Your task to perform on an android device: turn on data saver in the chrome app Image 0: 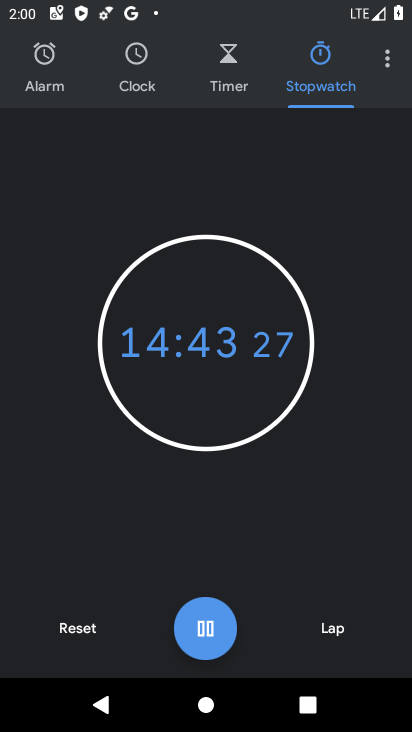
Step 0: press home button
Your task to perform on an android device: turn on data saver in the chrome app Image 1: 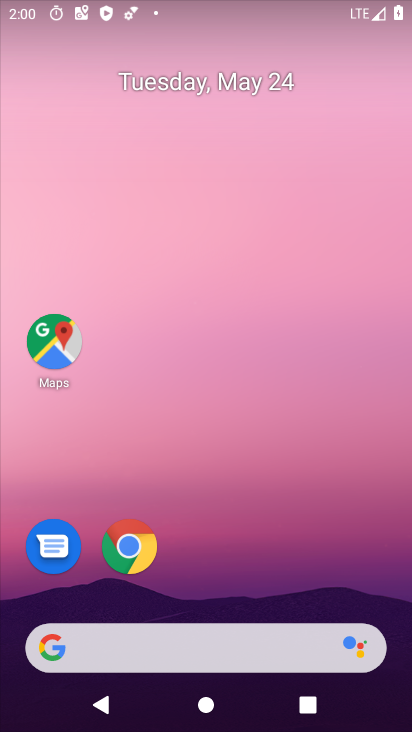
Step 1: click (143, 542)
Your task to perform on an android device: turn on data saver in the chrome app Image 2: 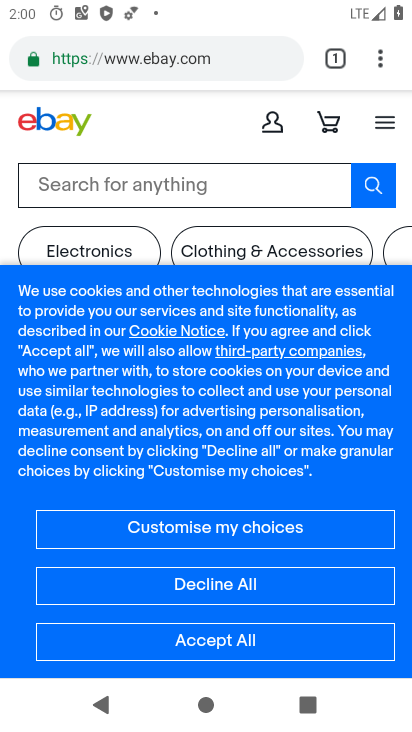
Step 2: drag from (384, 66) to (185, 563)
Your task to perform on an android device: turn on data saver in the chrome app Image 3: 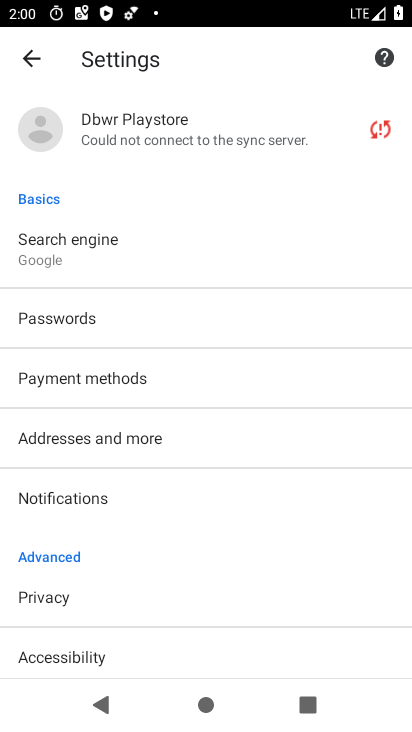
Step 3: drag from (72, 629) to (65, 127)
Your task to perform on an android device: turn on data saver in the chrome app Image 4: 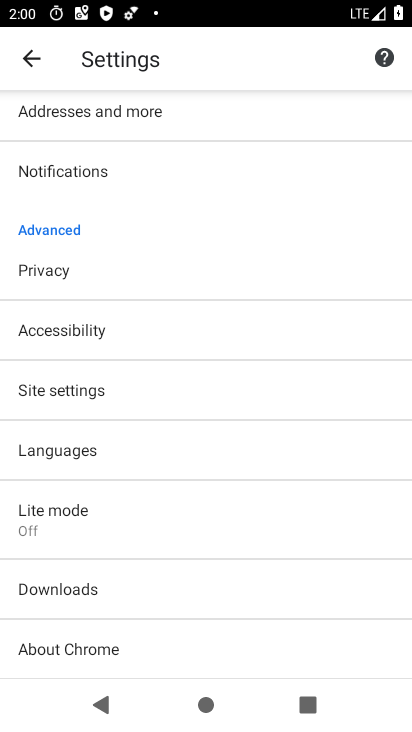
Step 4: click (113, 511)
Your task to perform on an android device: turn on data saver in the chrome app Image 5: 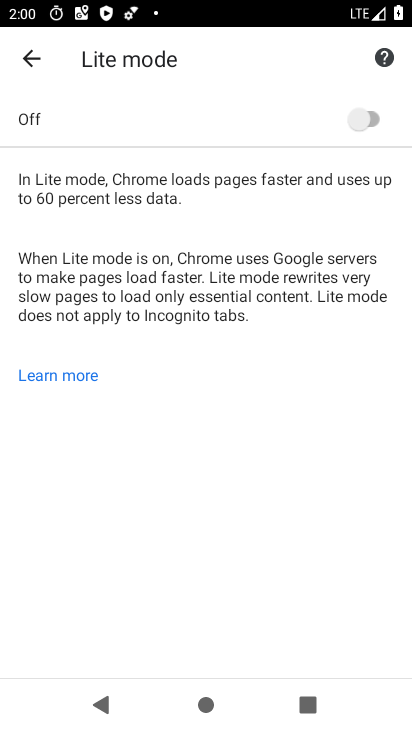
Step 5: click (359, 119)
Your task to perform on an android device: turn on data saver in the chrome app Image 6: 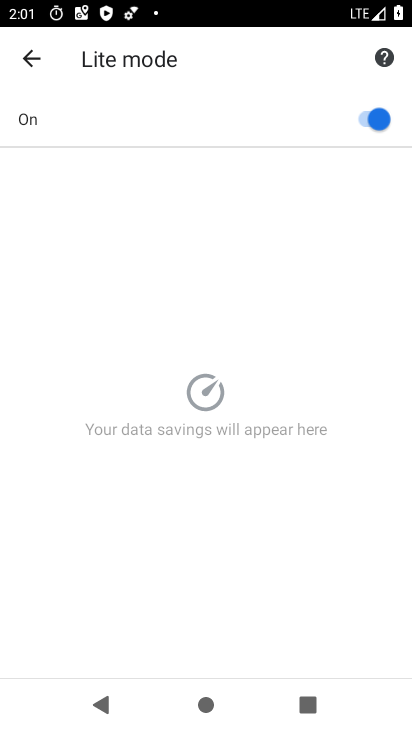
Step 6: task complete